Your task to perform on an android device: open the mobile data screen to see how much data has been used Image 0: 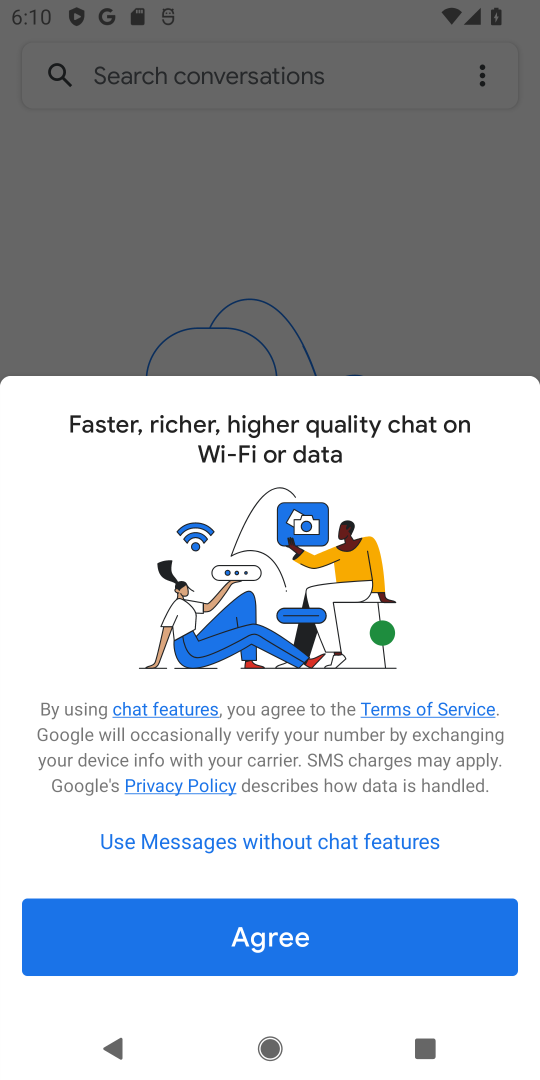
Step 0: press home button
Your task to perform on an android device: open the mobile data screen to see how much data has been used Image 1: 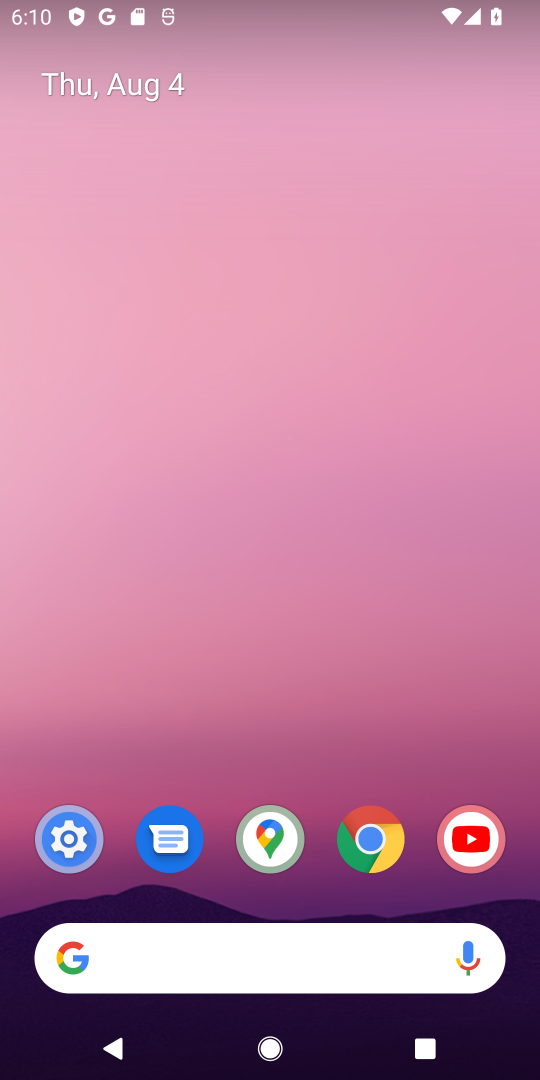
Step 1: drag from (310, 789) to (499, 189)
Your task to perform on an android device: open the mobile data screen to see how much data has been used Image 2: 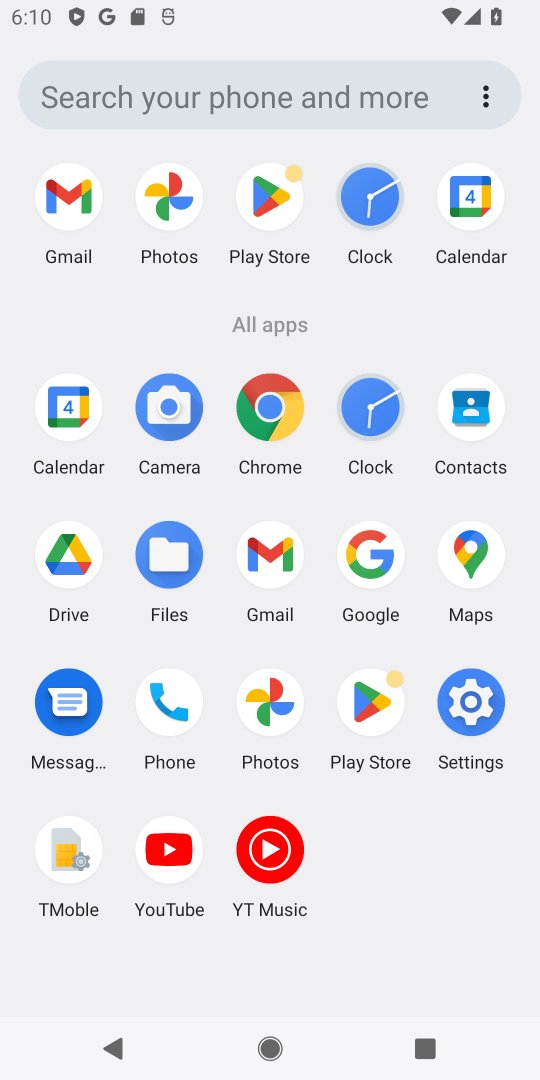
Step 2: click (481, 705)
Your task to perform on an android device: open the mobile data screen to see how much data has been used Image 3: 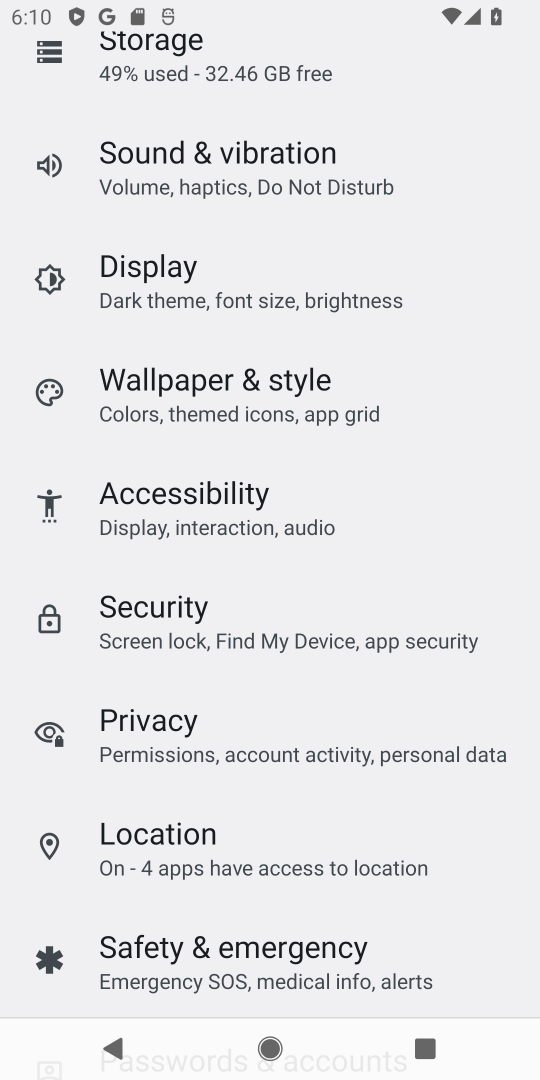
Step 3: drag from (388, 175) to (266, 829)
Your task to perform on an android device: open the mobile data screen to see how much data has been used Image 4: 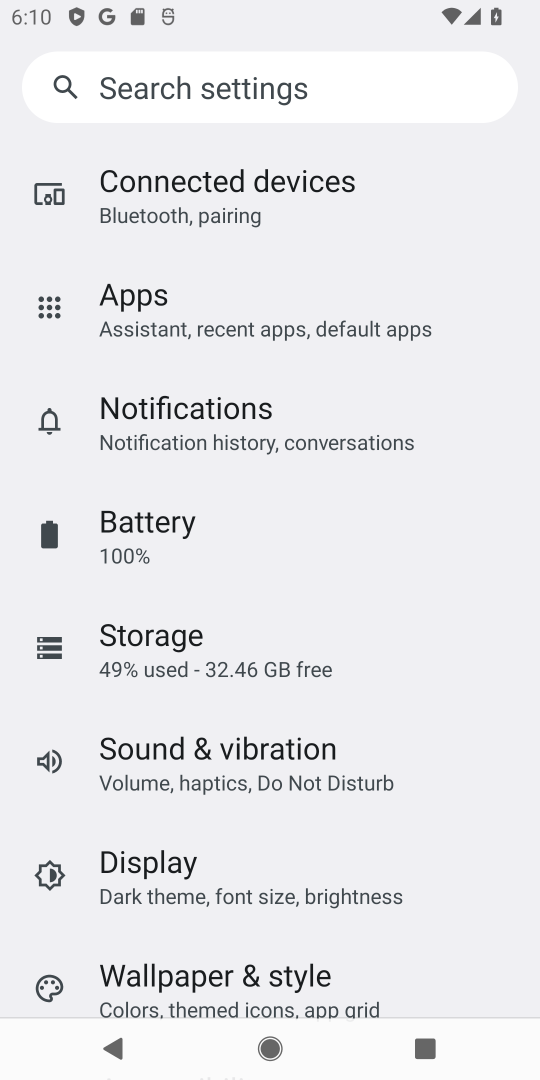
Step 4: drag from (273, 216) to (186, 604)
Your task to perform on an android device: open the mobile data screen to see how much data has been used Image 5: 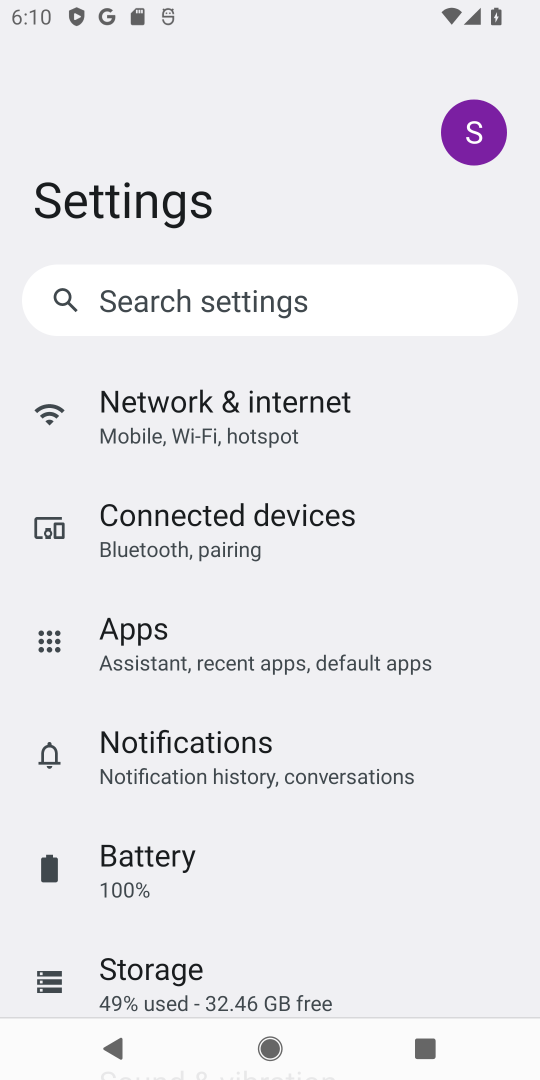
Step 5: click (234, 407)
Your task to perform on an android device: open the mobile data screen to see how much data has been used Image 6: 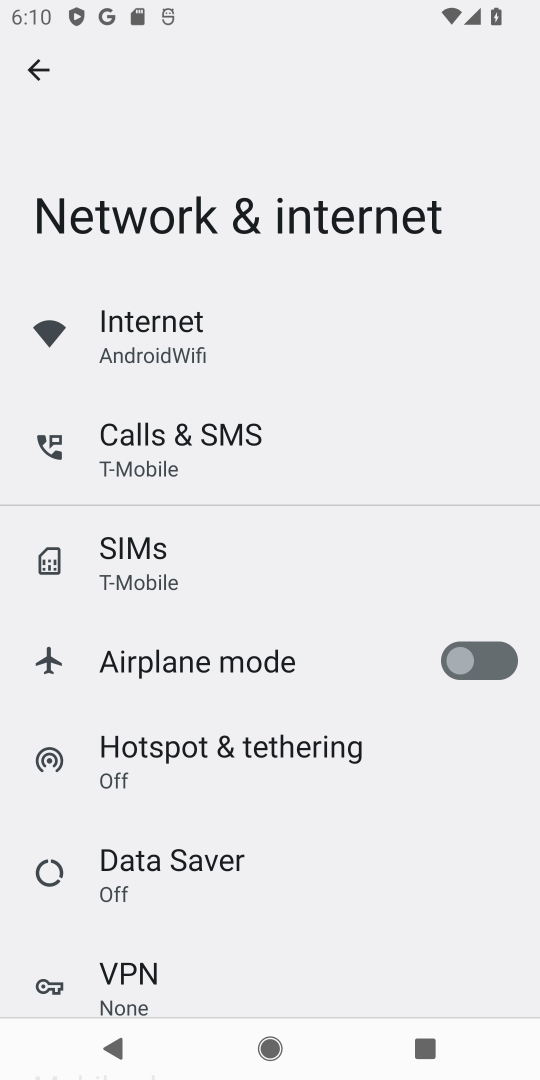
Step 6: click (218, 352)
Your task to perform on an android device: open the mobile data screen to see how much data has been used Image 7: 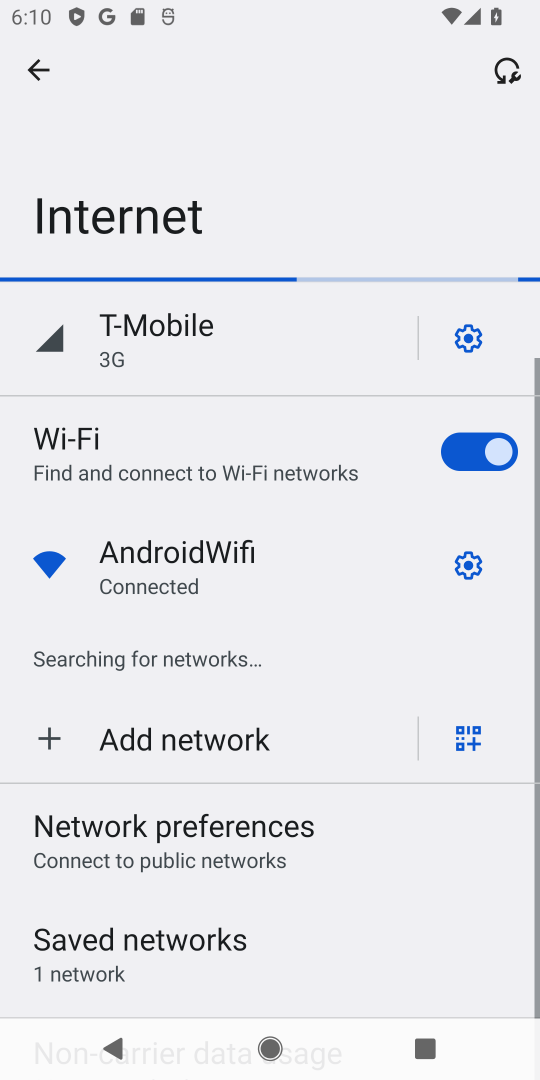
Step 7: click (484, 339)
Your task to perform on an android device: open the mobile data screen to see how much data has been used Image 8: 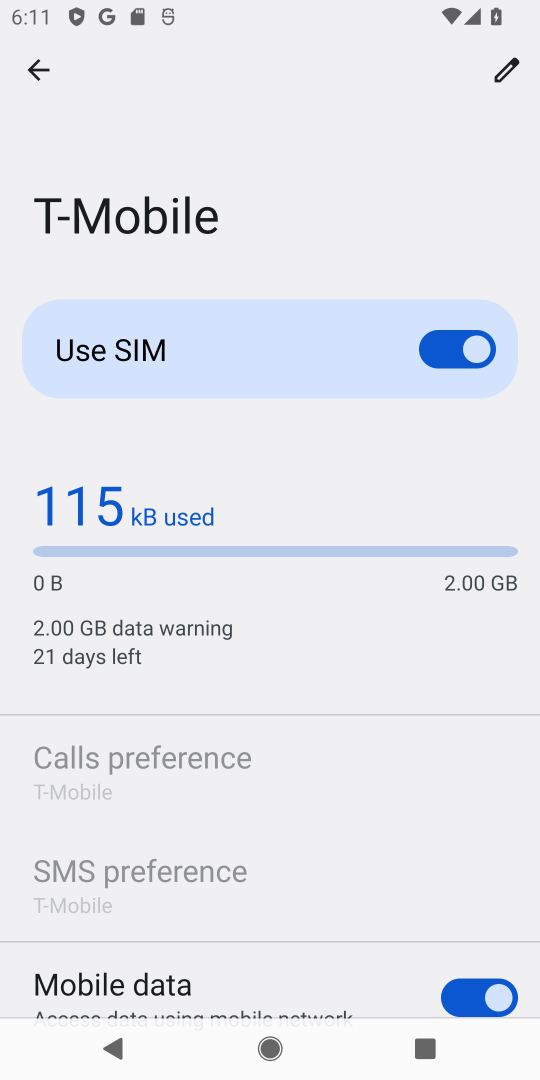
Step 8: task complete